Your task to perform on an android device: change text size in settings app Image 0: 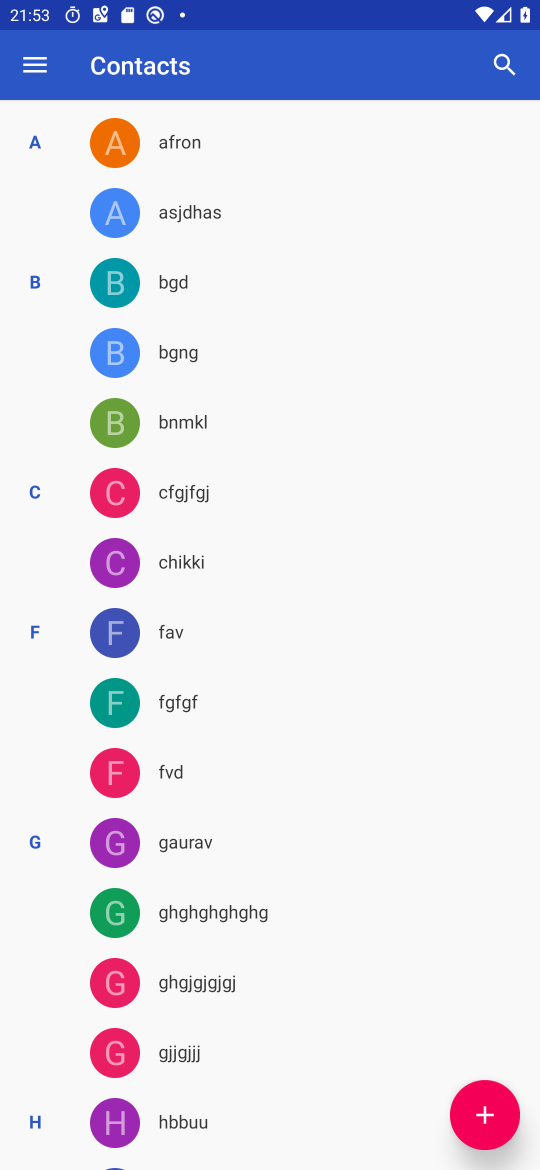
Step 0: press home button
Your task to perform on an android device: change text size in settings app Image 1: 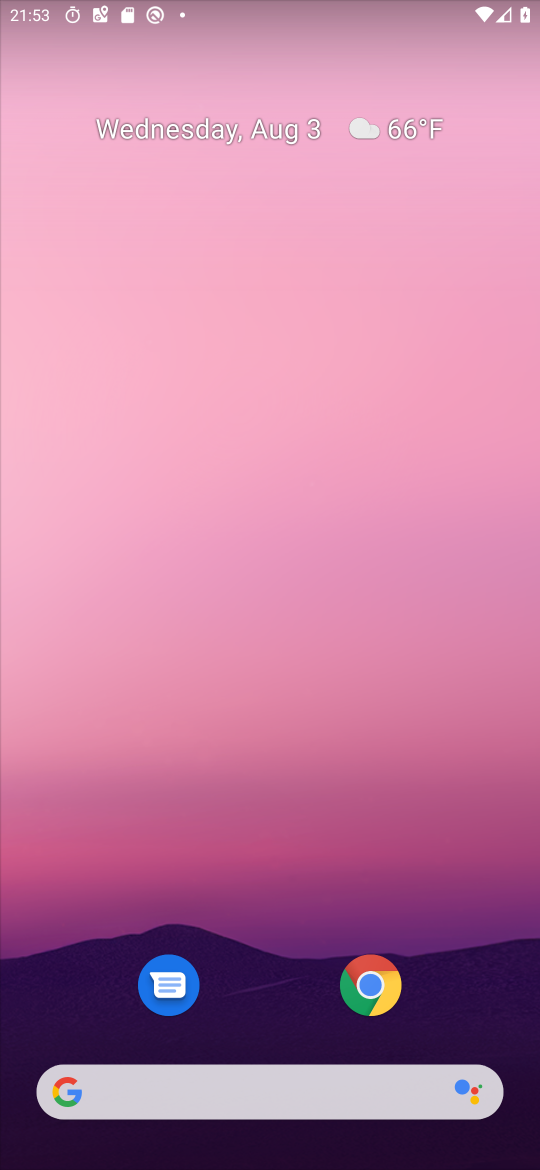
Step 1: drag from (278, 901) to (278, 180)
Your task to perform on an android device: change text size in settings app Image 2: 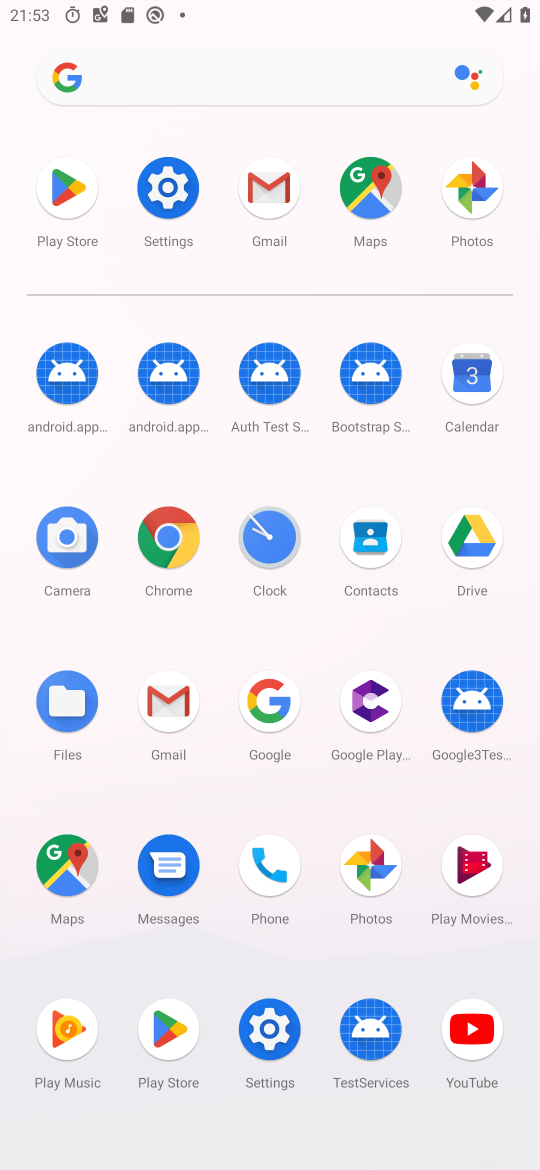
Step 2: click (188, 184)
Your task to perform on an android device: change text size in settings app Image 3: 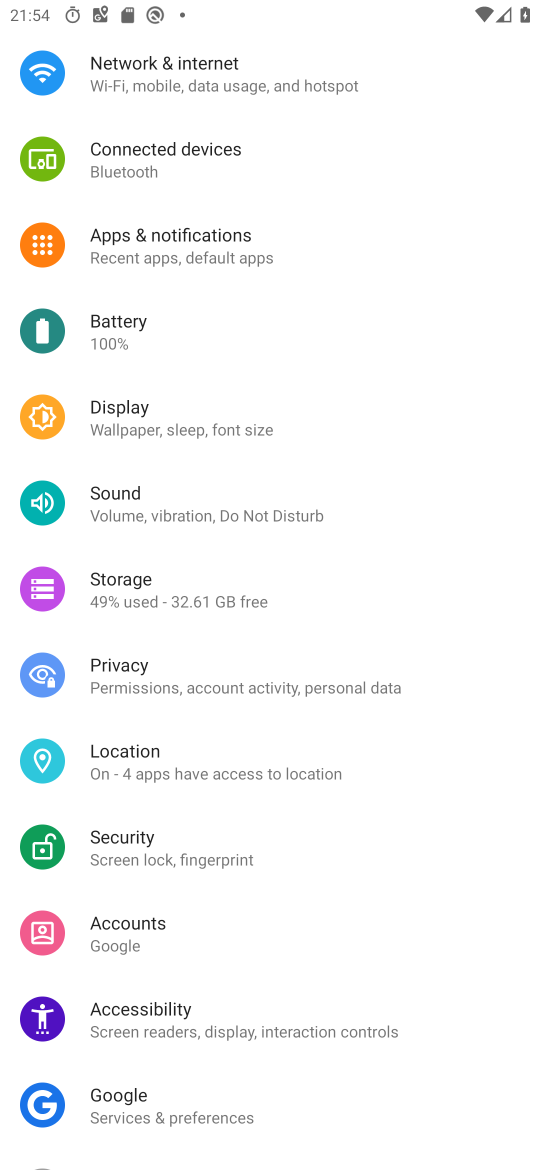
Step 3: click (179, 419)
Your task to perform on an android device: change text size in settings app Image 4: 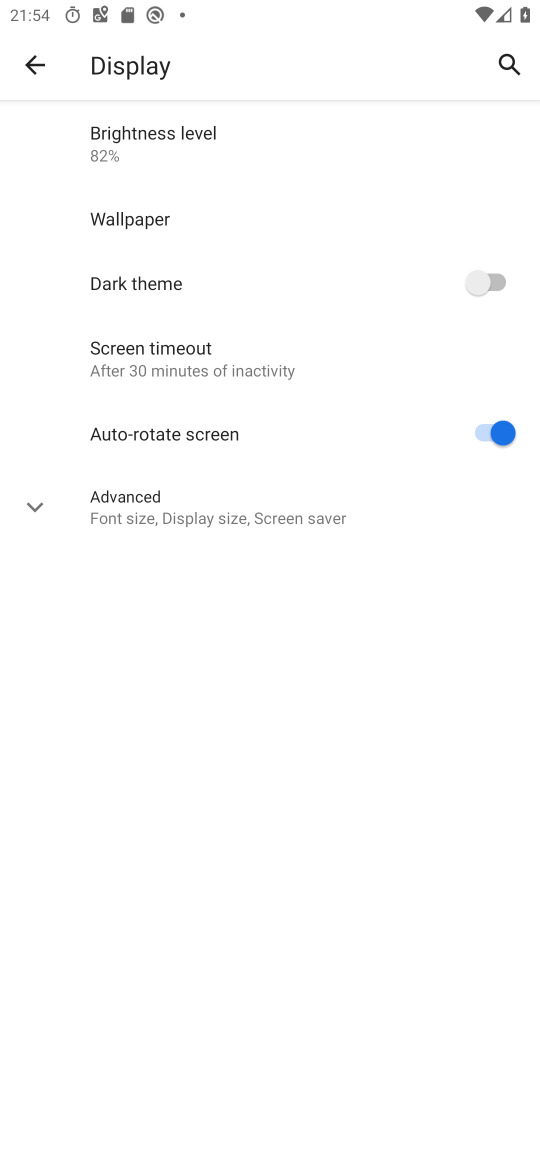
Step 4: click (174, 532)
Your task to perform on an android device: change text size in settings app Image 5: 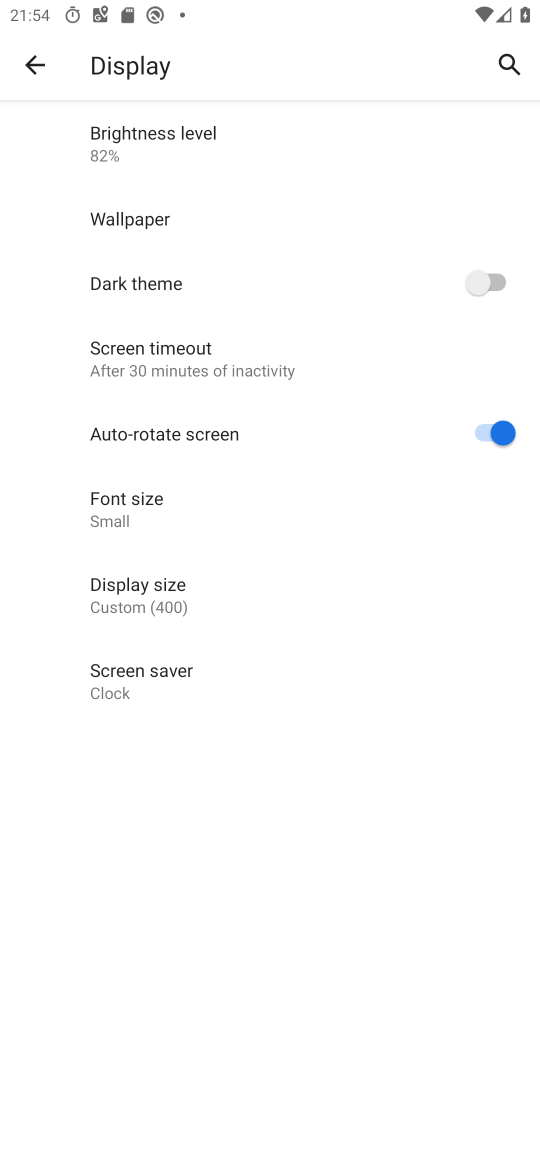
Step 5: click (169, 495)
Your task to perform on an android device: change text size in settings app Image 6: 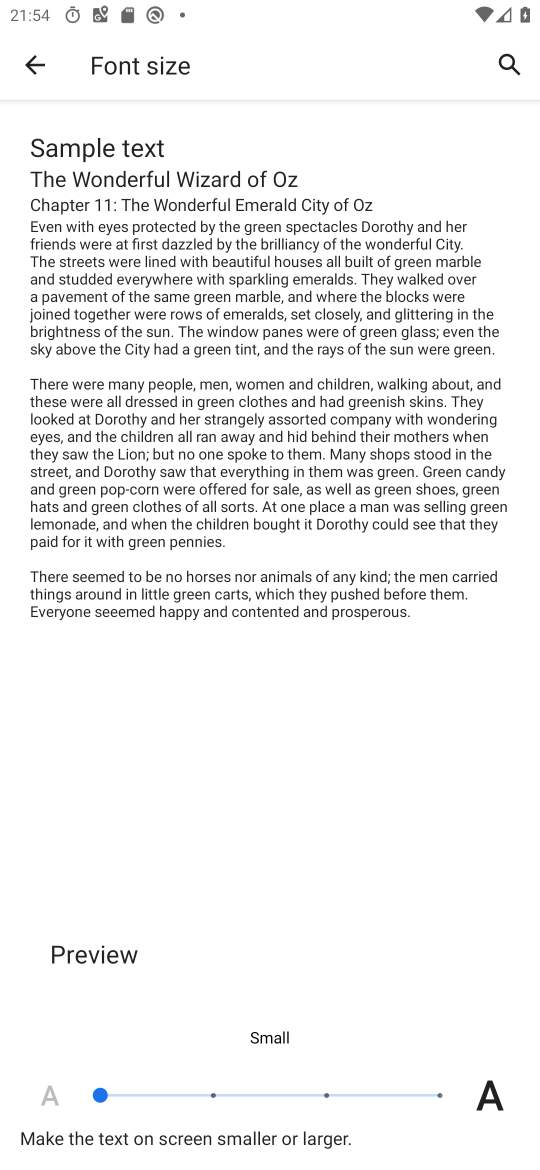
Step 6: click (439, 1111)
Your task to perform on an android device: change text size in settings app Image 7: 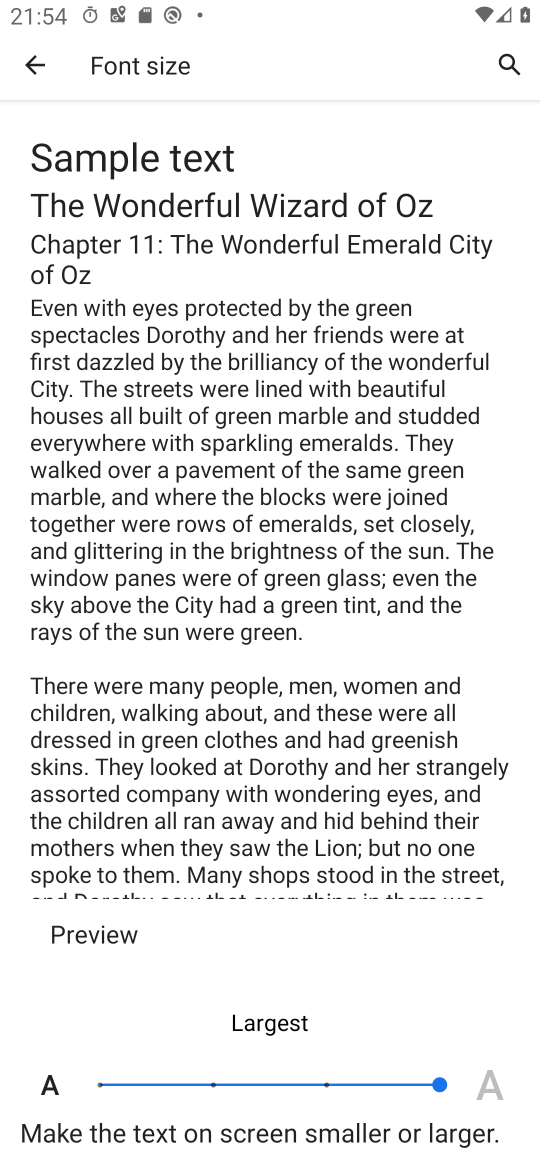
Step 7: task complete